Your task to perform on an android device: Go to notification settings Image 0: 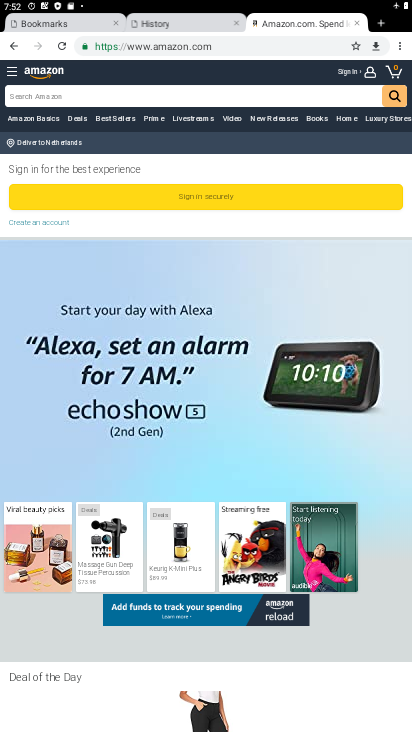
Step 0: press home button
Your task to perform on an android device: Go to notification settings Image 1: 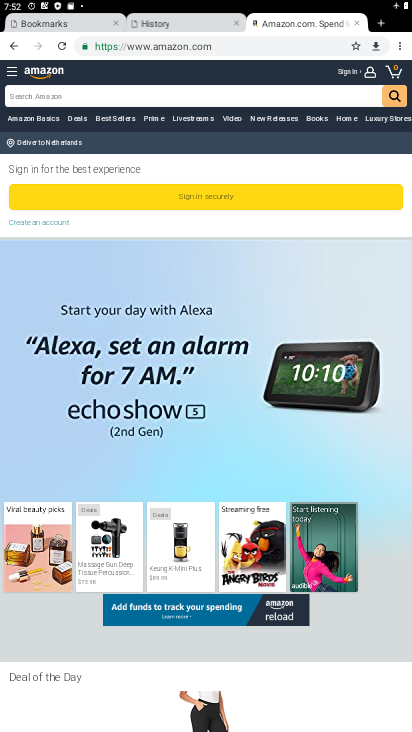
Step 1: drag from (378, 645) to (210, 86)
Your task to perform on an android device: Go to notification settings Image 2: 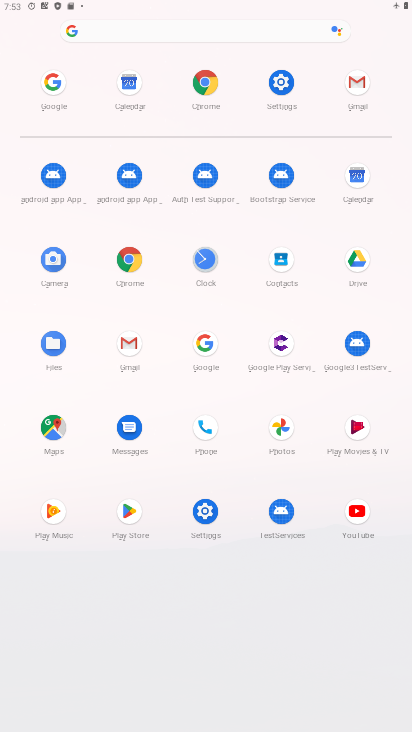
Step 2: click (197, 517)
Your task to perform on an android device: Go to notification settings Image 3: 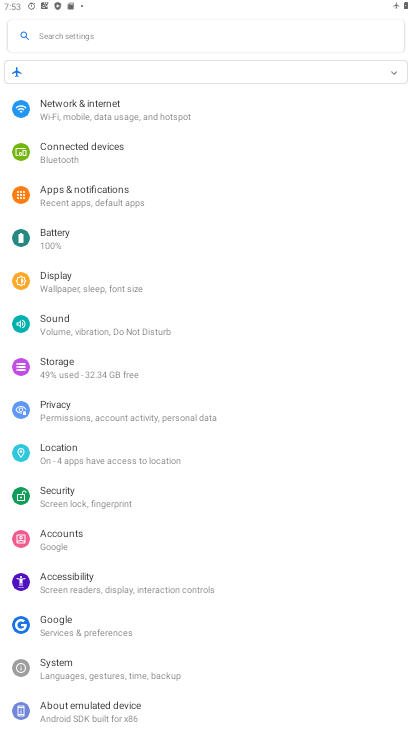
Step 3: click (88, 195)
Your task to perform on an android device: Go to notification settings Image 4: 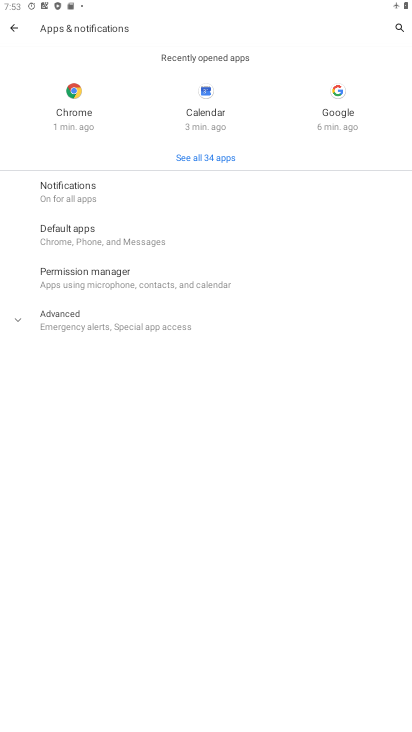
Step 4: click (73, 195)
Your task to perform on an android device: Go to notification settings Image 5: 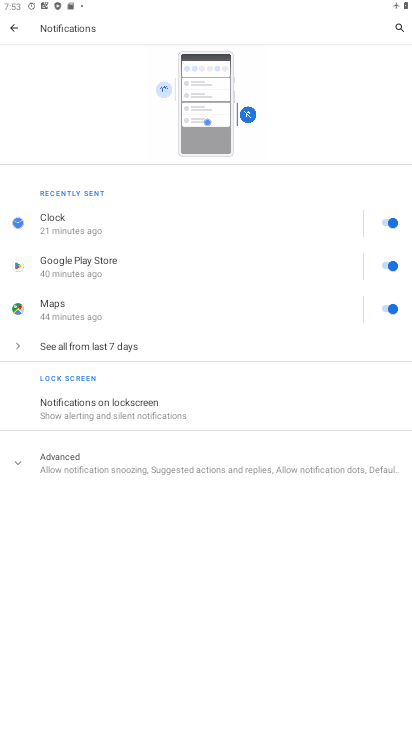
Step 5: task complete